Your task to perform on an android device: change notification settings in the gmail app Image 0: 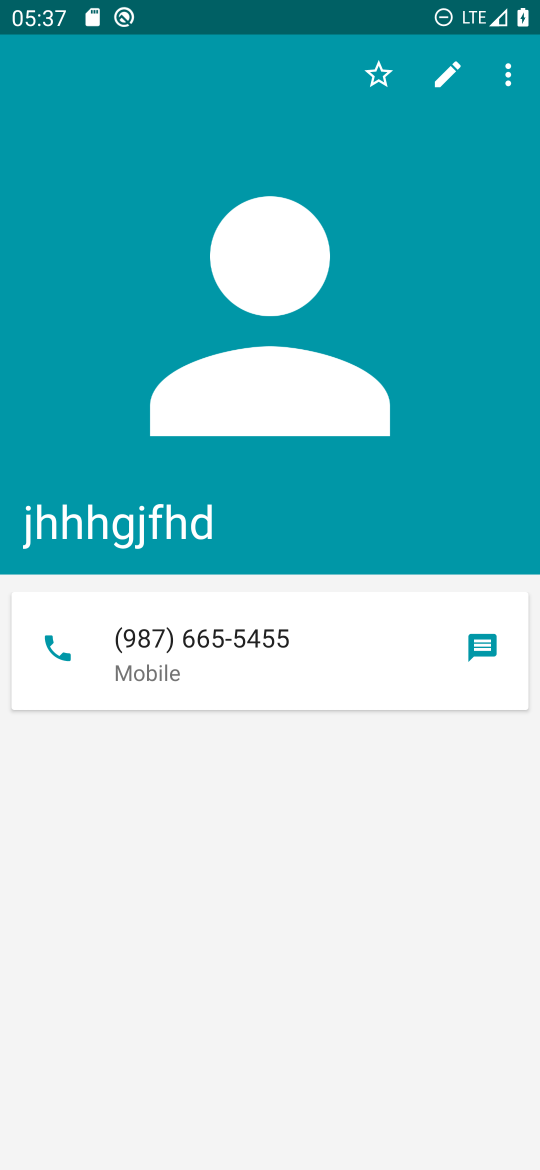
Step 0: press home button
Your task to perform on an android device: change notification settings in the gmail app Image 1: 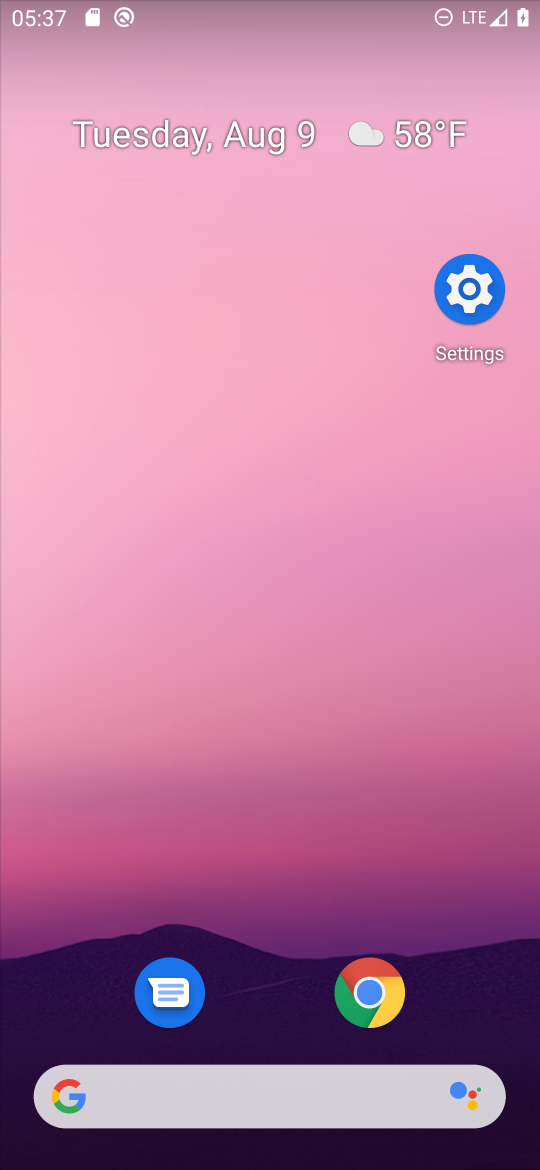
Step 1: drag from (188, 1078) to (67, 652)
Your task to perform on an android device: change notification settings in the gmail app Image 2: 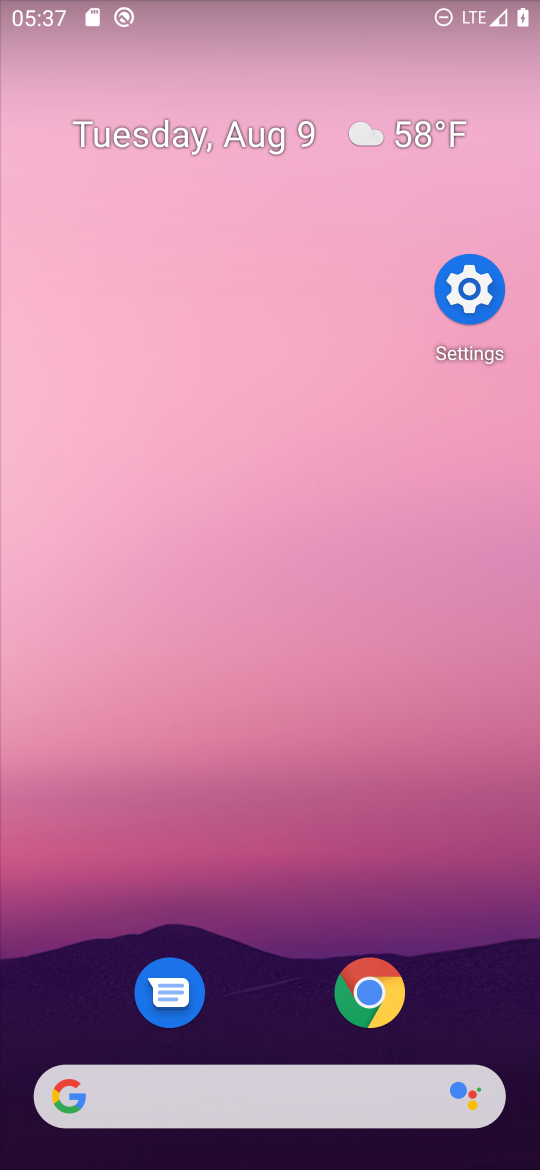
Step 2: drag from (351, 841) to (355, 275)
Your task to perform on an android device: change notification settings in the gmail app Image 3: 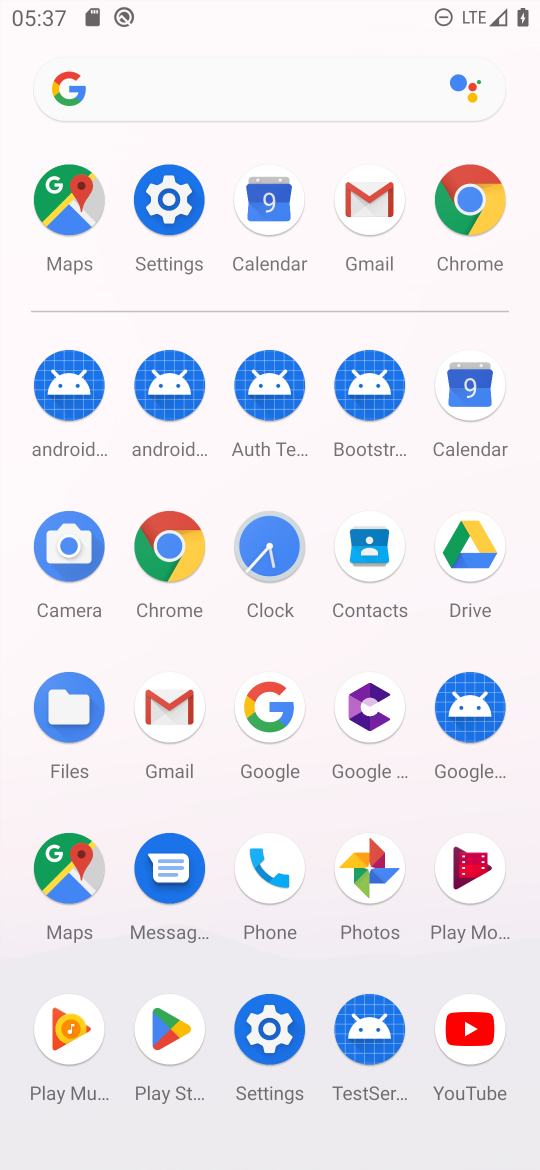
Step 3: click (175, 717)
Your task to perform on an android device: change notification settings in the gmail app Image 4: 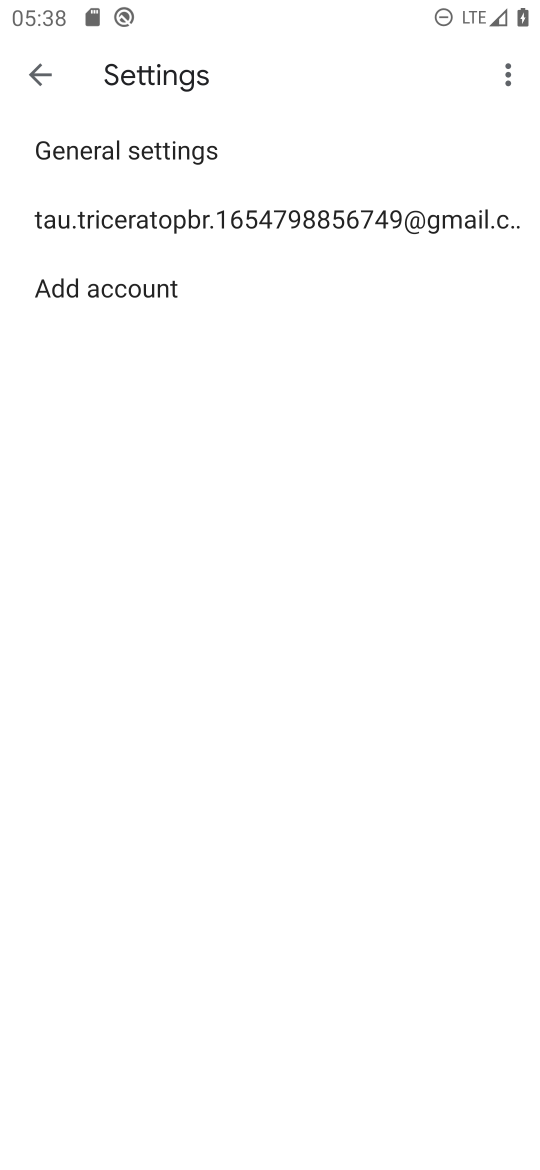
Step 4: click (320, 230)
Your task to perform on an android device: change notification settings in the gmail app Image 5: 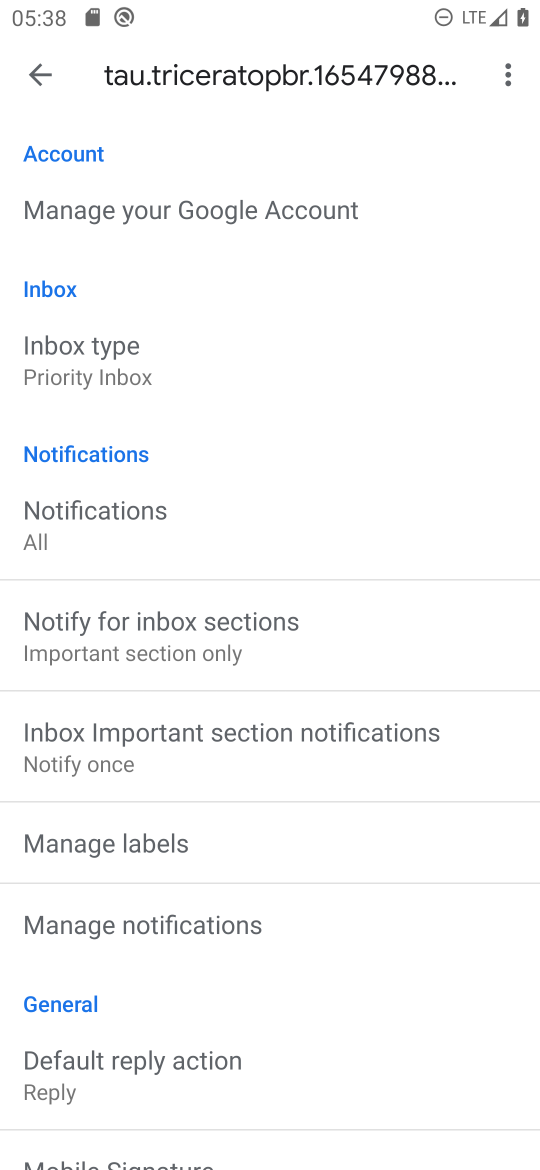
Step 5: click (129, 920)
Your task to perform on an android device: change notification settings in the gmail app Image 6: 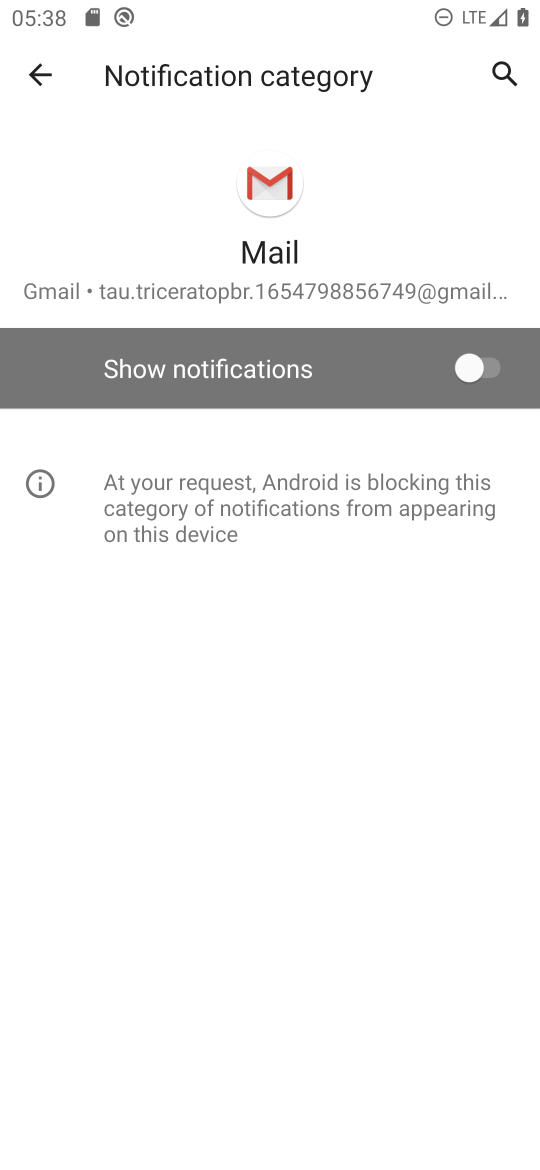
Step 6: click (478, 378)
Your task to perform on an android device: change notification settings in the gmail app Image 7: 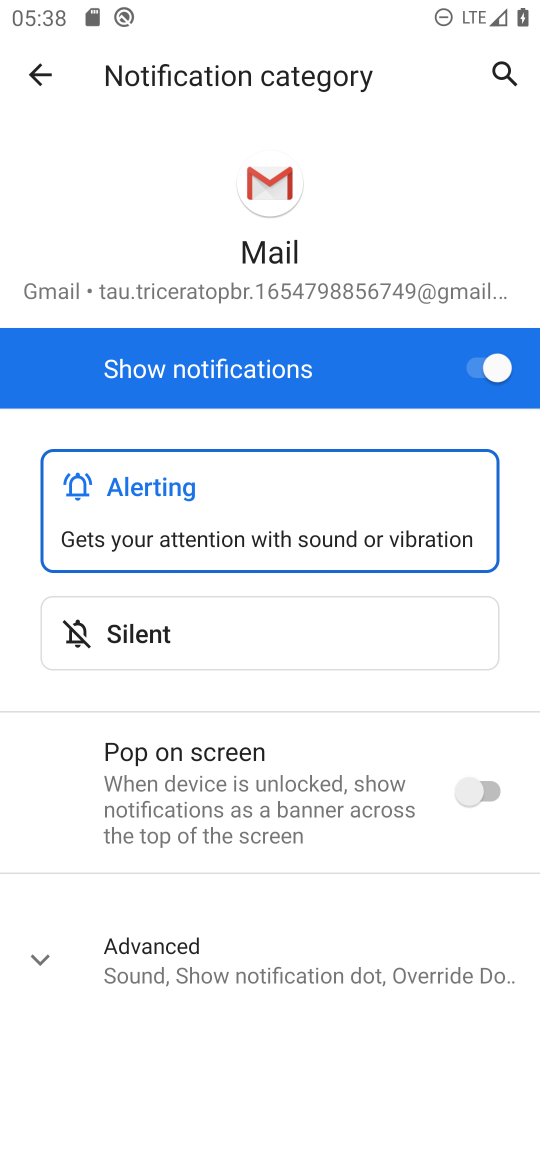
Step 7: task complete